Your task to perform on an android device: Open the phone app and click the voicemail tab. Image 0: 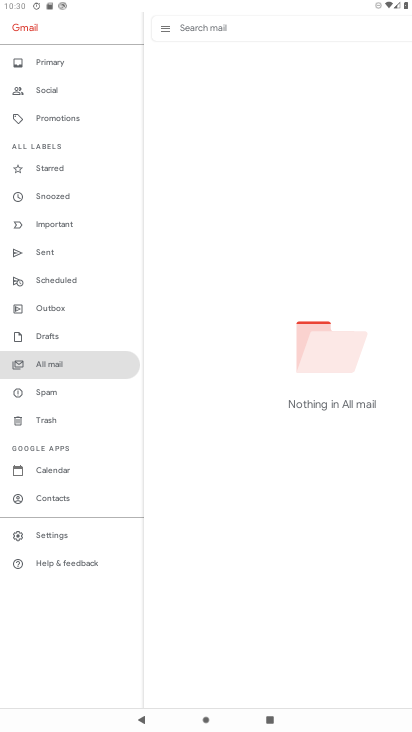
Step 0: press home button
Your task to perform on an android device: Open the phone app and click the voicemail tab. Image 1: 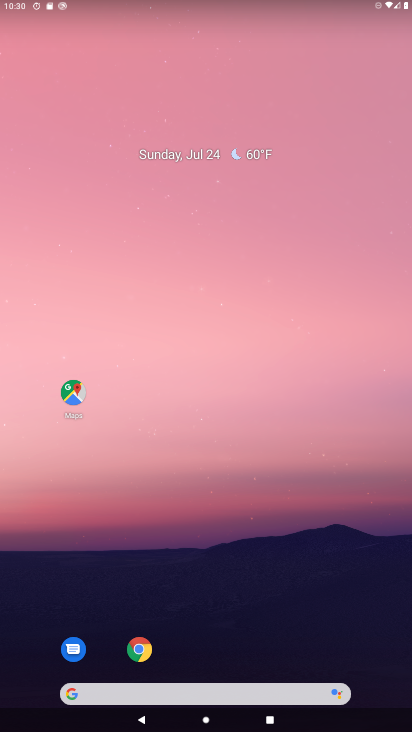
Step 1: click (203, 185)
Your task to perform on an android device: Open the phone app and click the voicemail tab. Image 2: 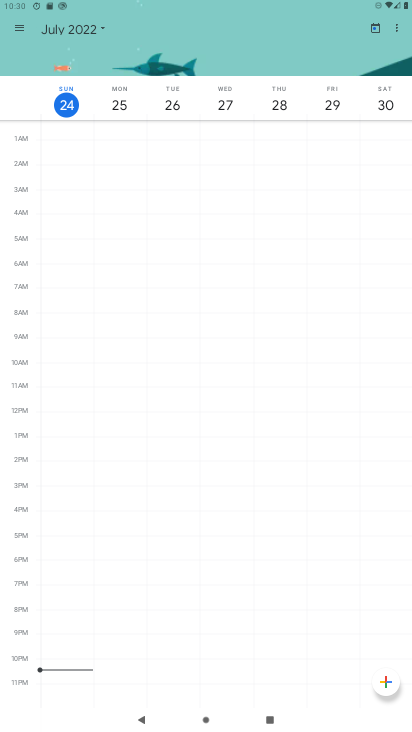
Step 2: press home button
Your task to perform on an android device: Open the phone app and click the voicemail tab. Image 3: 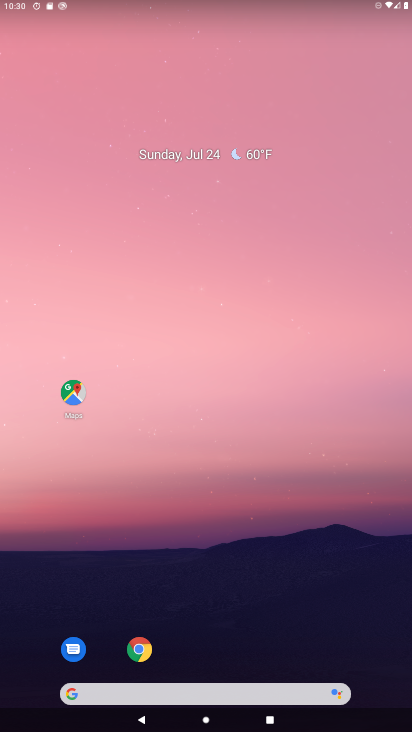
Step 3: drag from (146, 186) to (131, 101)
Your task to perform on an android device: Open the phone app and click the voicemail tab. Image 4: 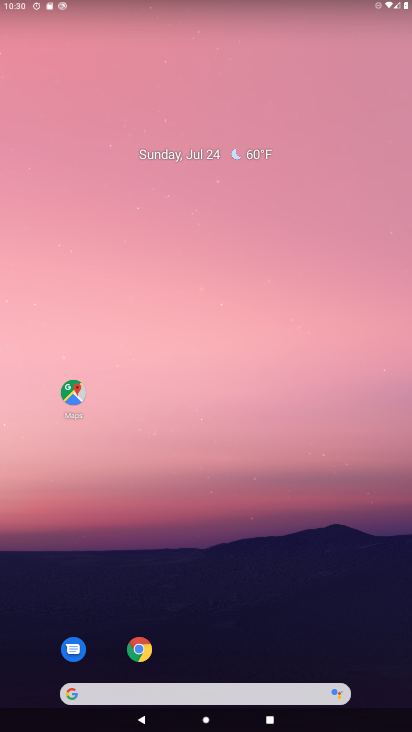
Step 4: drag from (285, 623) to (213, 58)
Your task to perform on an android device: Open the phone app and click the voicemail tab. Image 5: 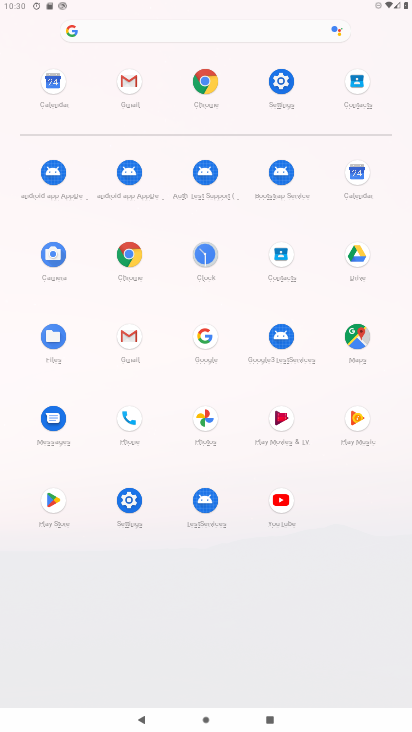
Step 5: click (129, 420)
Your task to perform on an android device: Open the phone app and click the voicemail tab. Image 6: 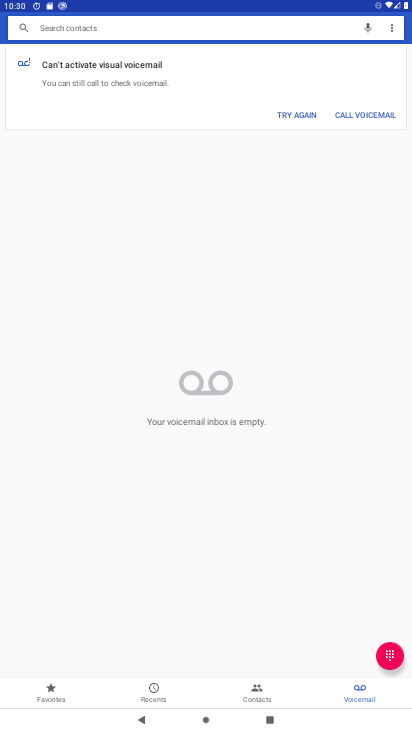
Step 6: task complete